Your task to perform on an android device: Show me popular videos on Youtube Image 0: 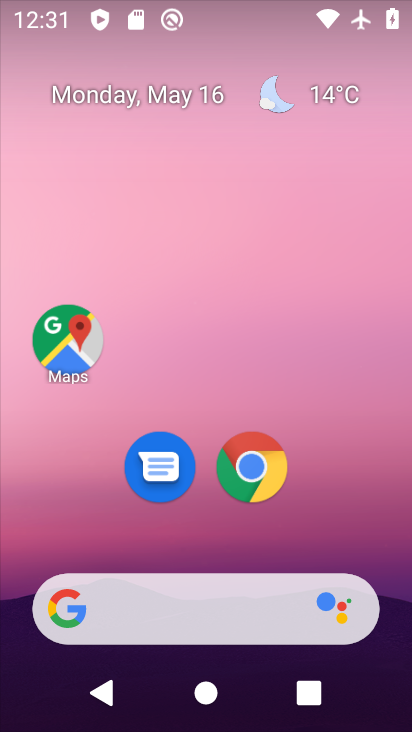
Step 0: drag from (287, 585) to (410, 213)
Your task to perform on an android device: Show me popular videos on Youtube Image 1: 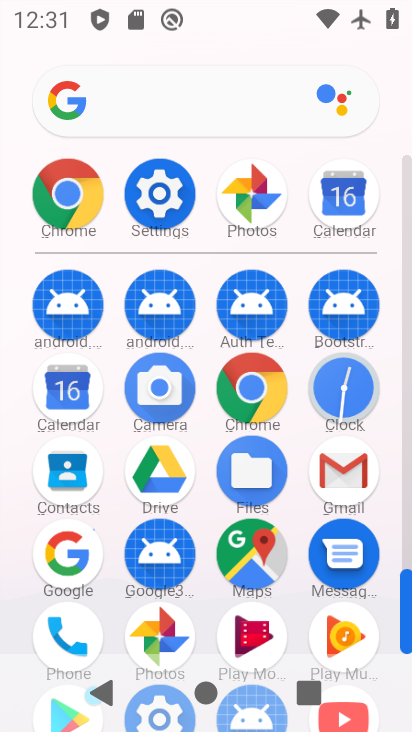
Step 1: drag from (263, 637) to (400, 409)
Your task to perform on an android device: Show me popular videos on Youtube Image 2: 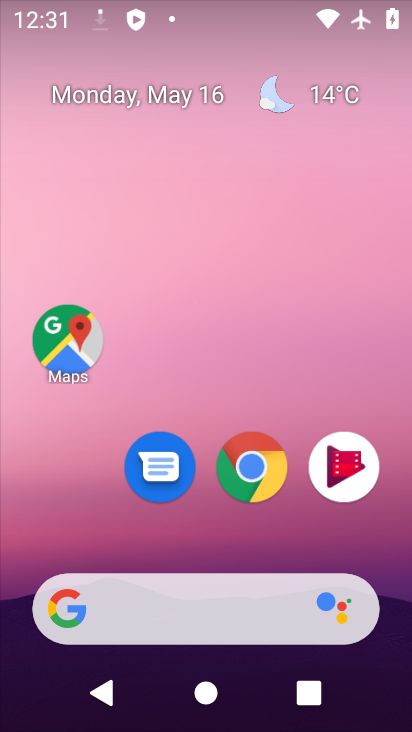
Step 2: drag from (256, 627) to (389, 285)
Your task to perform on an android device: Show me popular videos on Youtube Image 3: 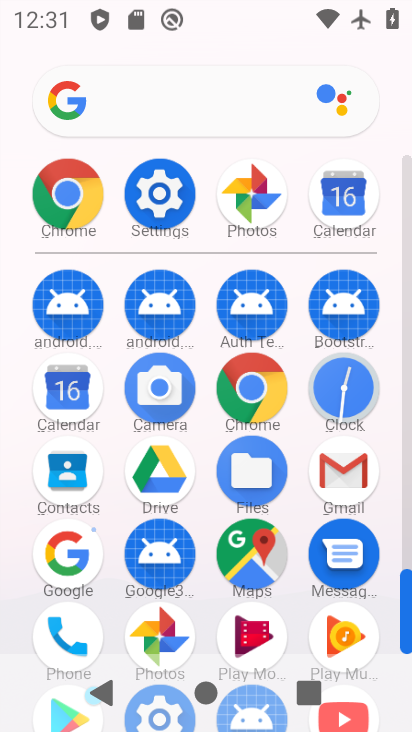
Step 3: drag from (314, 603) to (406, 389)
Your task to perform on an android device: Show me popular videos on Youtube Image 4: 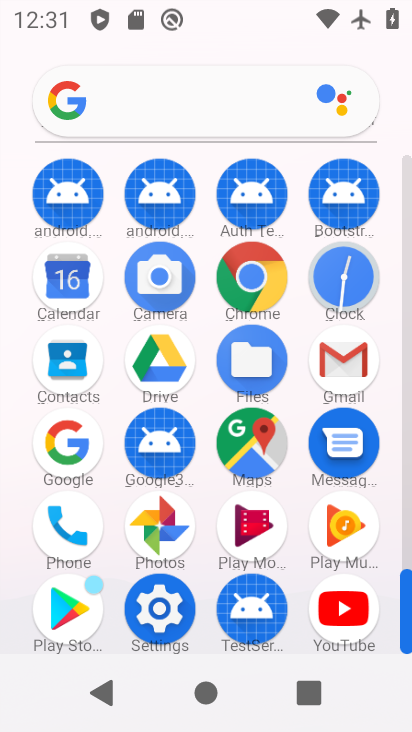
Step 4: click (338, 621)
Your task to perform on an android device: Show me popular videos on Youtube Image 5: 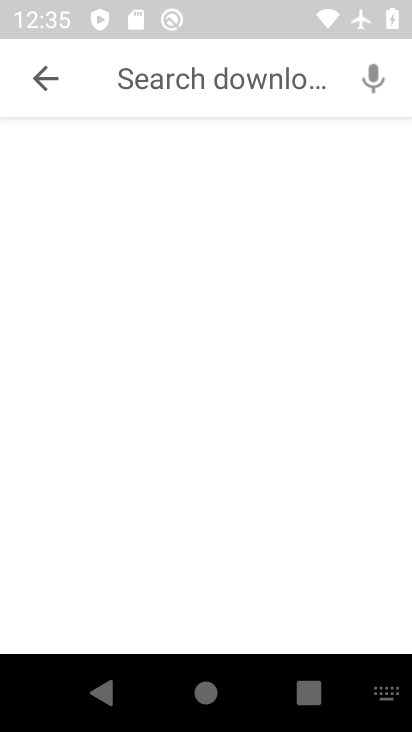
Step 5: press home button
Your task to perform on an android device: Show me popular videos on Youtube Image 6: 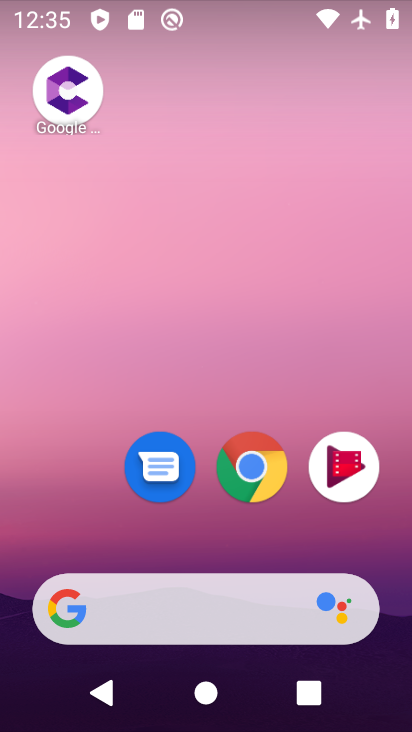
Step 6: drag from (271, 550) to (398, 214)
Your task to perform on an android device: Show me popular videos on Youtube Image 7: 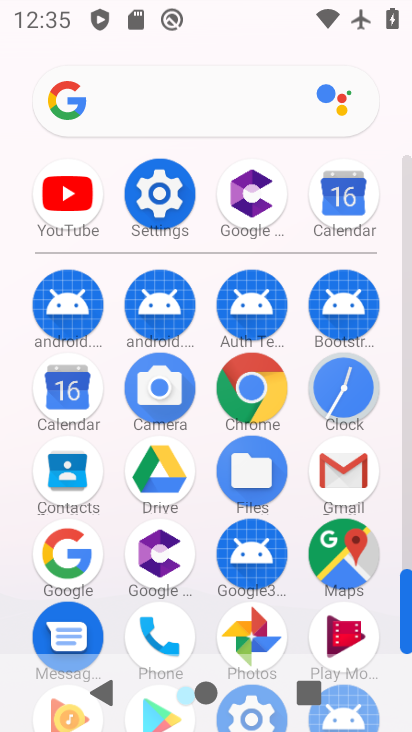
Step 7: drag from (268, 663) to (396, 403)
Your task to perform on an android device: Show me popular videos on Youtube Image 8: 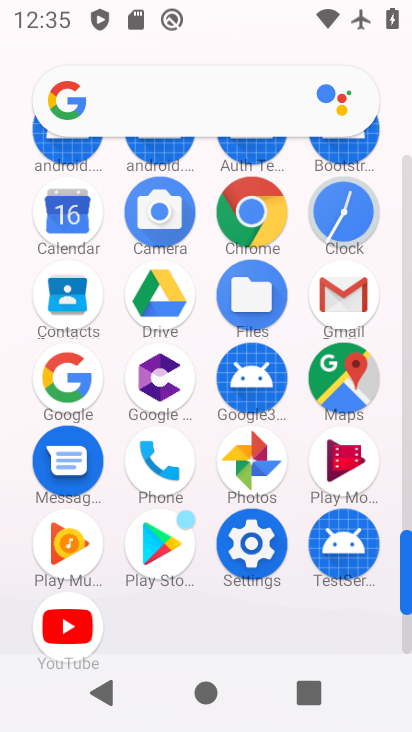
Step 8: click (50, 617)
Your task to perform on an android device: Show me popular videos on Youtube Image 9: 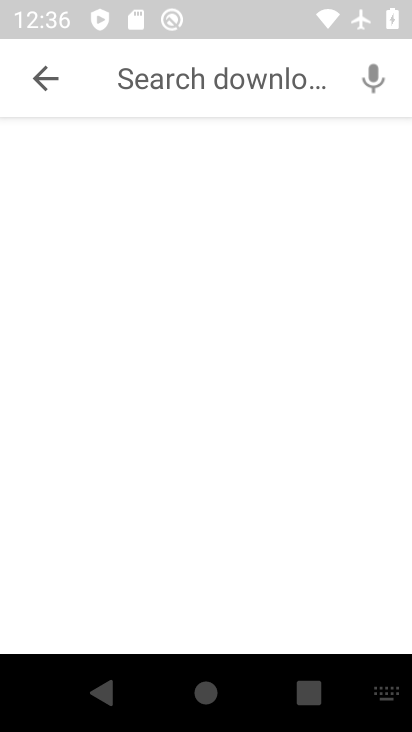
Step 9: task complete